Your task to perform on an android device: Go to location settings Image 0: 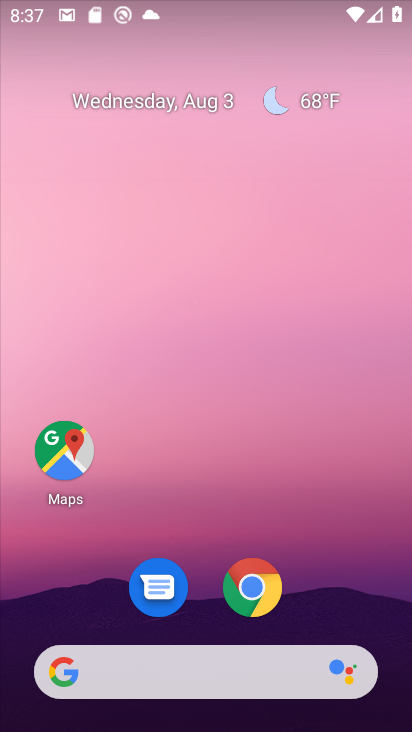
Step 0: drag from (334, 584) to (398, 21)
Your task to perform on an android device: Go to location settings Image 1: 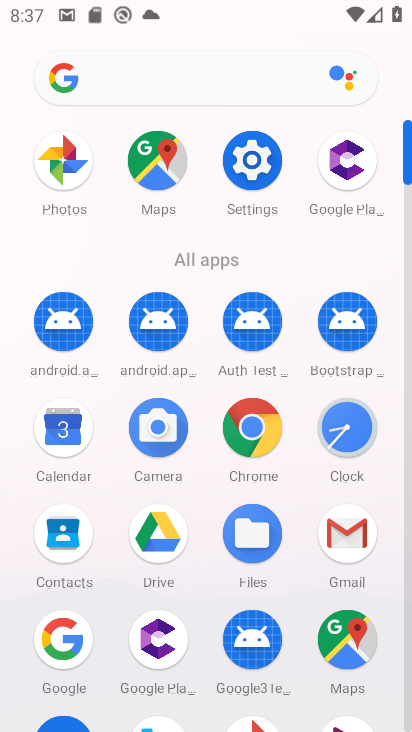
Step 1: click (252, 156)
Your task to perform on an android device: Go to location settings Image 2: 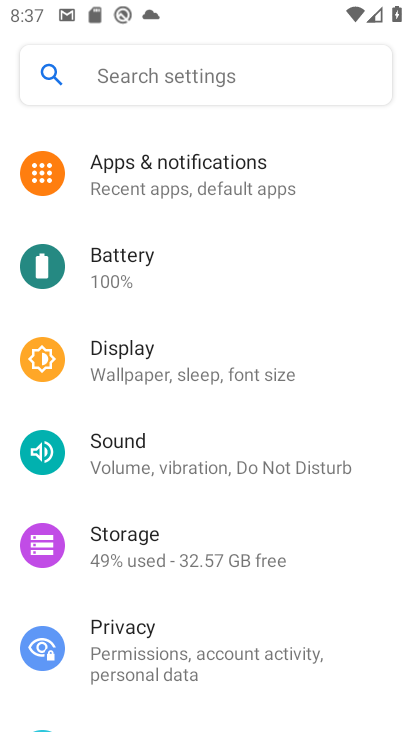
Step 2: drag from (203, 607) to (288, 156)
Your task to perform on an android device: Go to location settings Image 3: 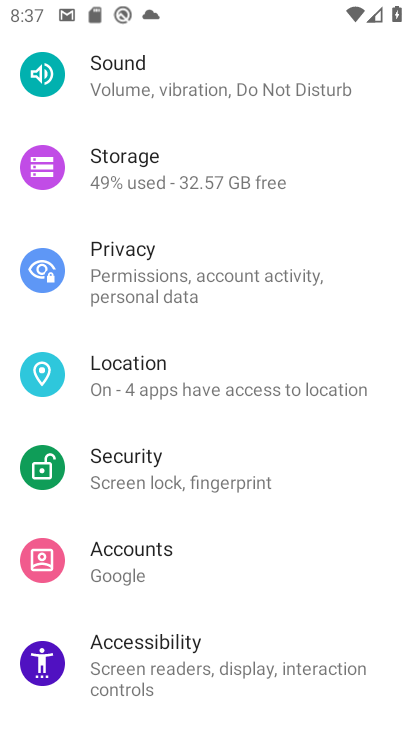
Step 3: click (154, 385)
Your task to perform on an android device: Go to location settings Image 4: 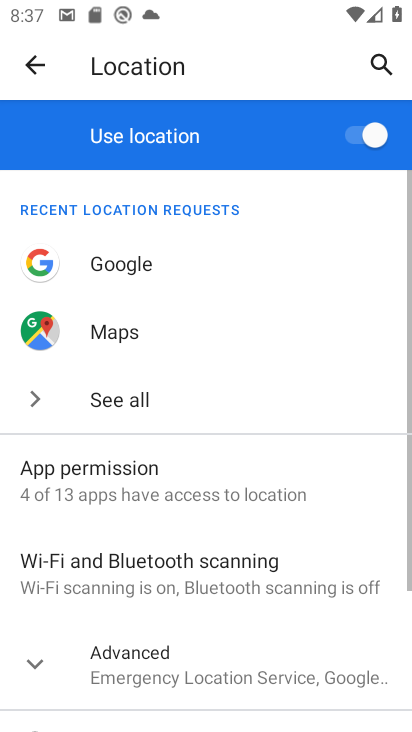
Step 4: task complete